Your task to perform on an android device: Open Google Chrome and open the bookmarks view Image 0: 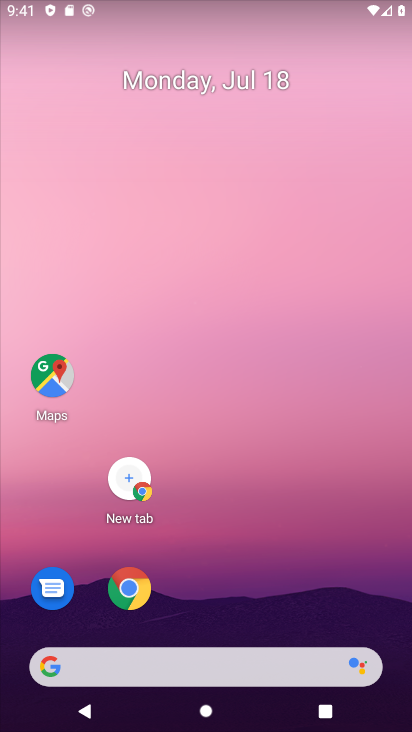
Step 0: click (135, 585)
Your task to perform on an android device: Open Google Chrome and open the bookmarks view Image 1: 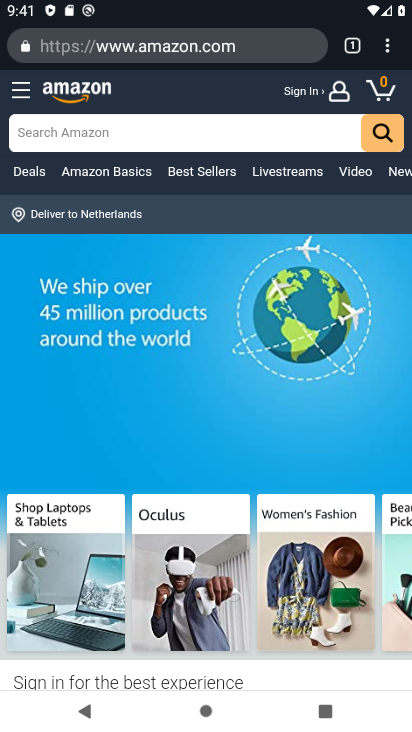
Step 1: click (396, 53)
Your task to perform on an android device: Open Google Chrome and open the bookmarks view Image 2: 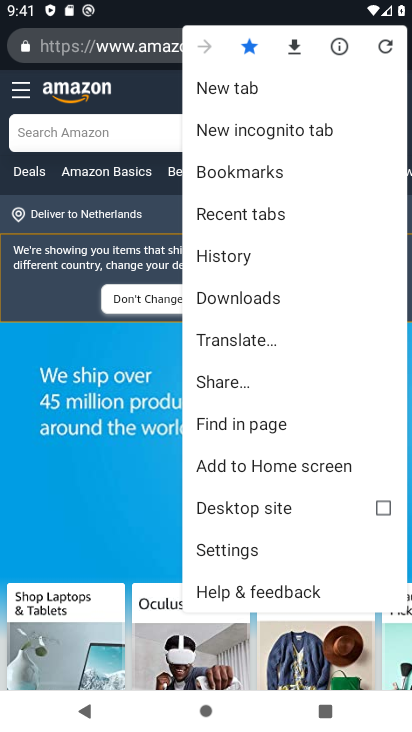
Step 2: click (252, 170)
Your task to perform on an android device: Open Google Chrome and open the bookmarks view Image 3: 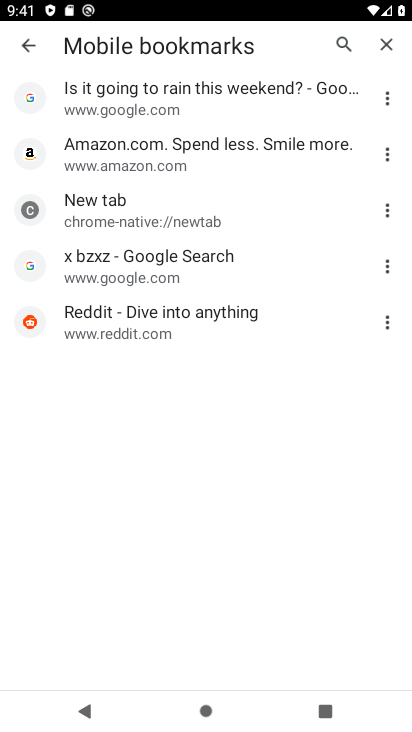
Step 3: task complete